Your task to perform on an android device: Go to CNN.com Image 0: 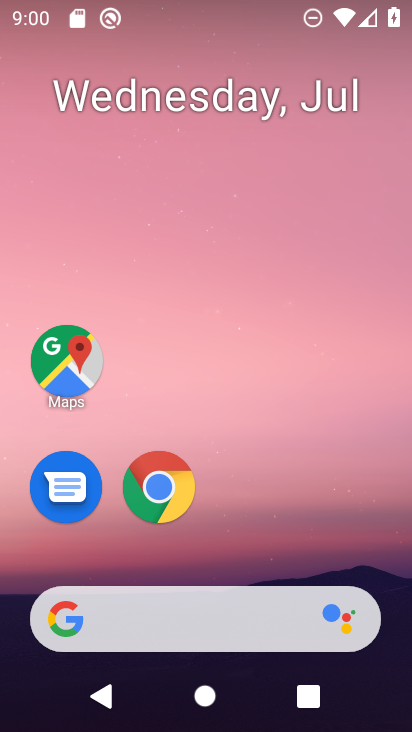
Step 0: drag from (327, 528) to (335, 97)
Your task to perform on an android device: Go to CNN.com Image 1: 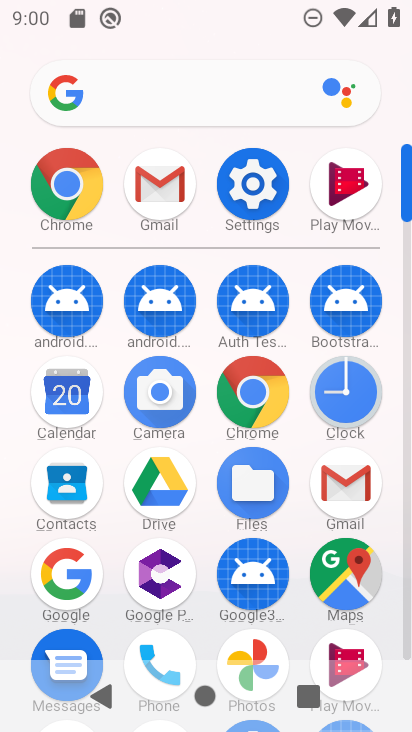
Step 1: click (258, 392)
Your task to perform on an android device: Go to CNN.com Image 2: 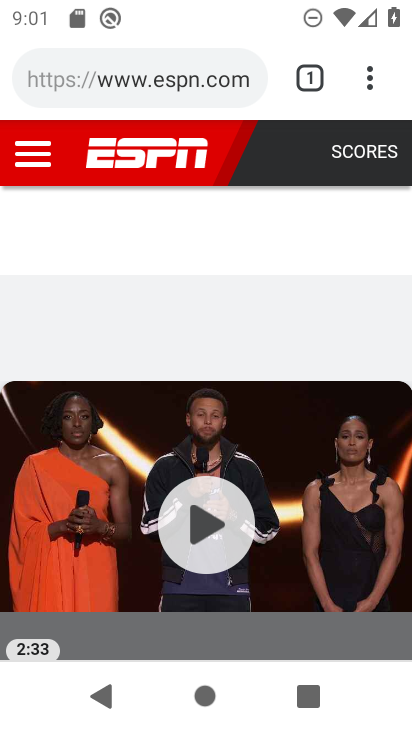
Step 2: click (219, 78)
Your task to perform on an android device: Go to CNN.com Image 3: 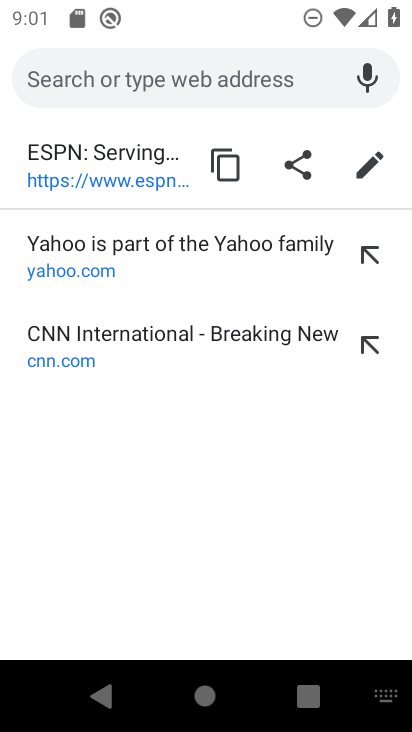
Step 3: type "cnn.com"
Your task to perform on an android device: Go to CNN.com Image 4: 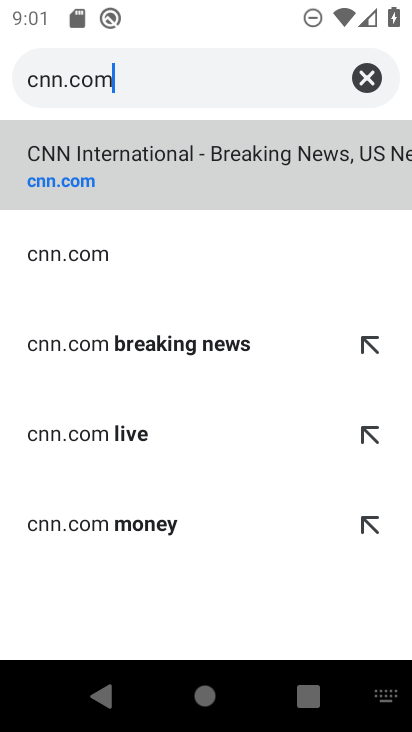
Step 4: click (224, 178)
Your task to perform on an android device: Go to CNN.com Image 5: 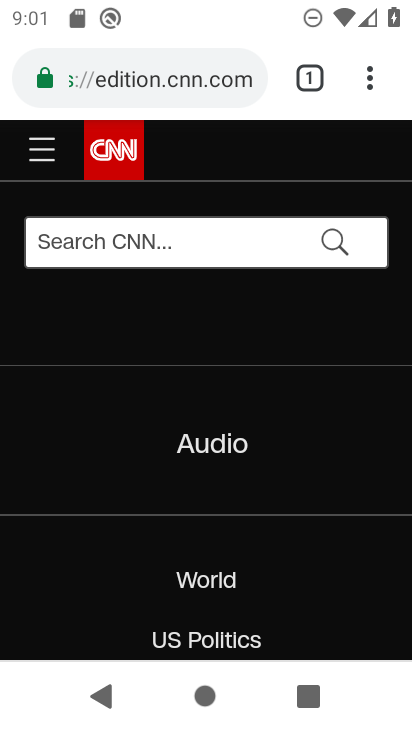
Step 5: task complete